Your task to perform on an android device: add a label to a message in the gmail app Image 0: 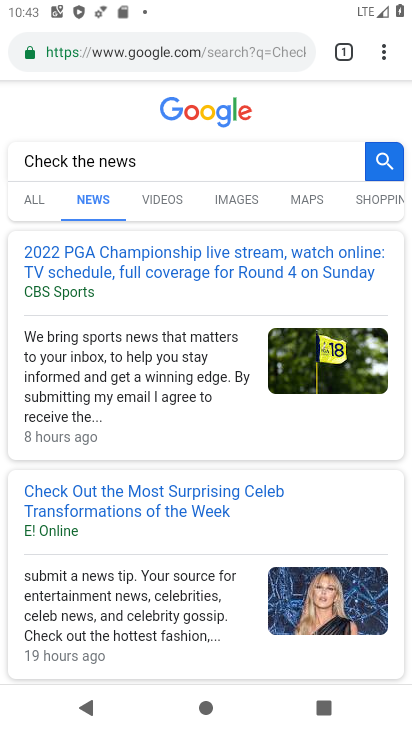
Step 0: press back button
Your task to perform on an android device: add a label to a message in the gmail app Image 1: 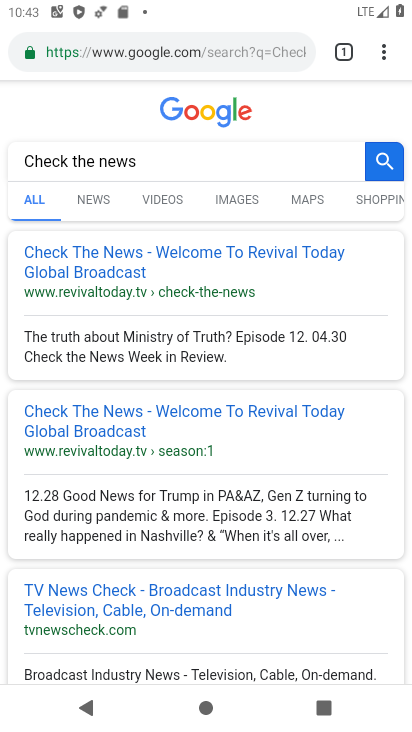
Step 1: press home button
Your task to perform on an android device: add a label to a message in the gmail app Image 2: 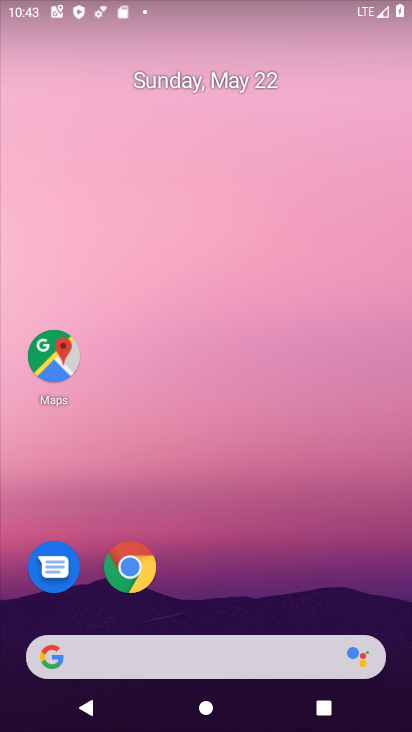
Step 2: drag from (247, 562) to (230, 15)
Your task to perform on an android device: add a label to a message in the gmail app Image 3: 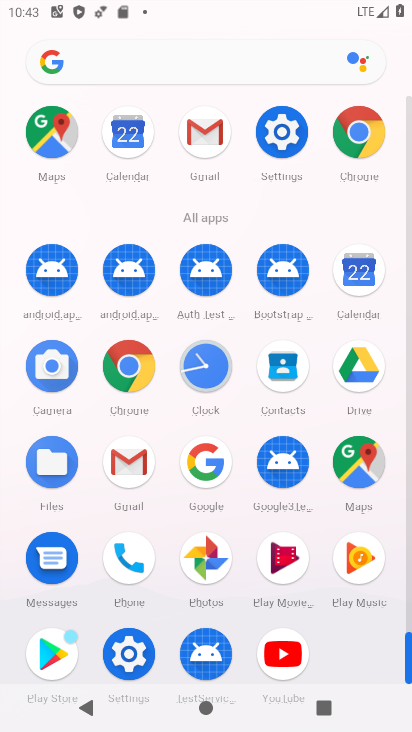
Step 3: click (203, 124)
Your task to perform on an android device: add a label to a message in the gmail app Image 4: 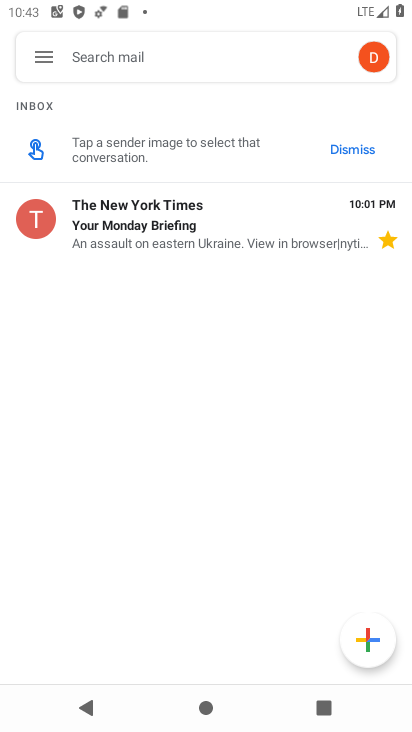
Step 4: click (47, 50)
Your task to perform on an android device: add a label to a message in the gmail app Image 5: 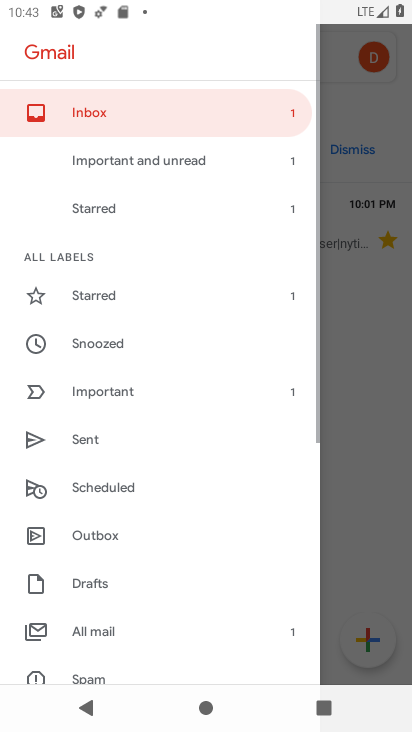
Step 5: drag from (138, 589) to (188, 143)
Your task to perform on an android device: add a label to a message in the gmail app Image 6: 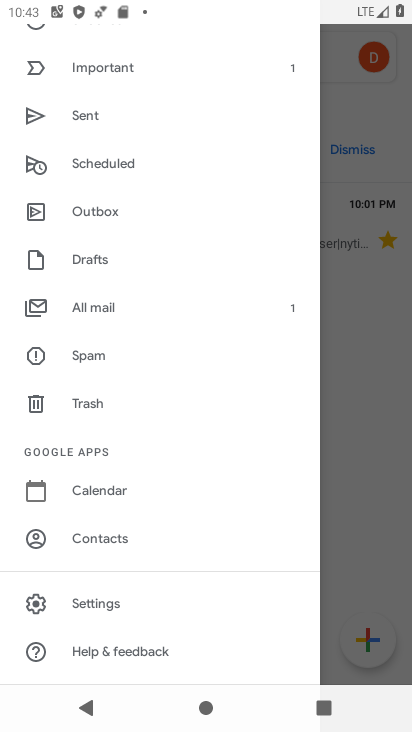
Step 6: click (126, 299)
Your task to perform on an android device: add a label to a message in the gmail app Image 7: 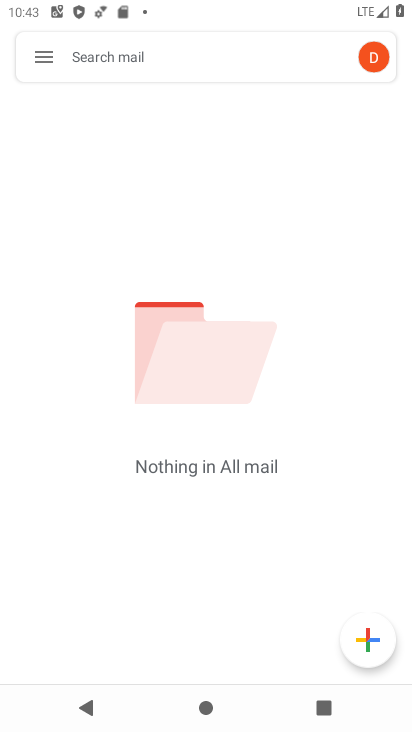
Step 7: click (34, 50)
Your task to perform on an android device: add a label to a message in the gmail app Image 8: 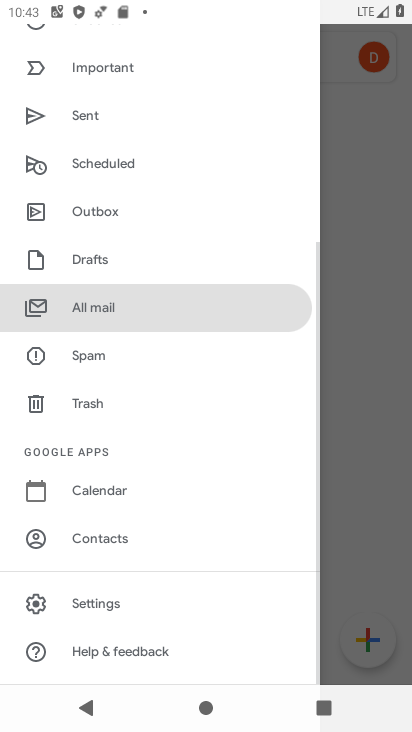
Step 8: drag from (210, 159) to (225, 634)
Your task to perform on an android device: add a label to a message in the gmail app Image 9: 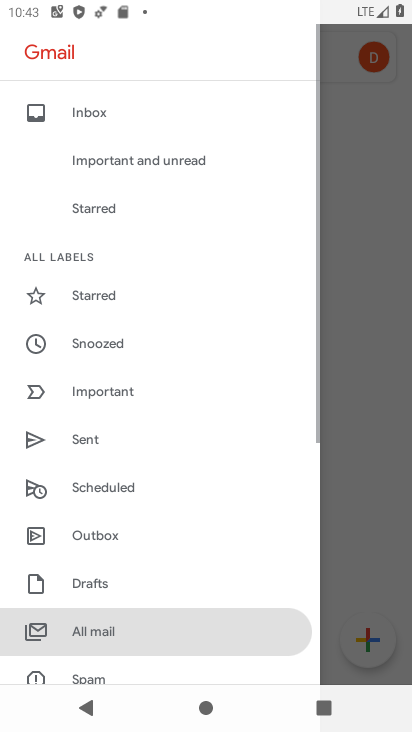
Step 9: click (120, 116)
Your task to perform on an android device: add a label to a message in the gmail app Image 10: 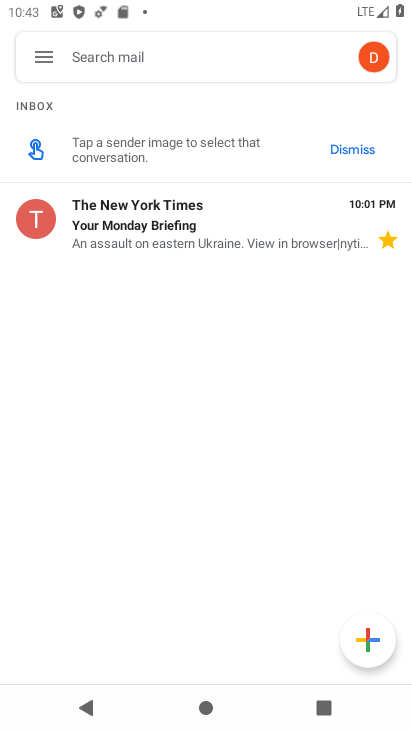
Step 10: click (246, 212)
Your task to perform on an android device: add a label to a message in the gmail app Image 11: 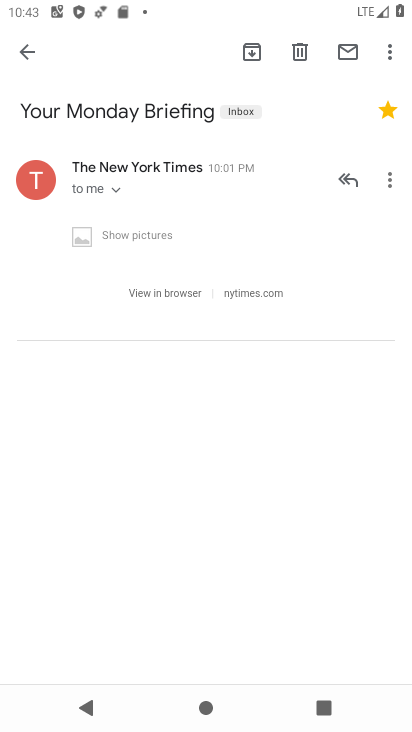
Step 11: click (243, 110)
Your task to perform on an android device: add a label to a message in the gmail app Image 12: 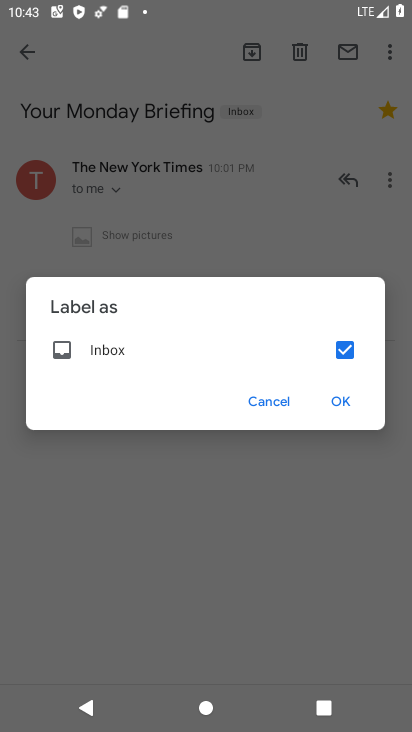
Step 12: click (340, 352)
Your task to perform on an android device: add a label to a message in the gmail app Image 13: 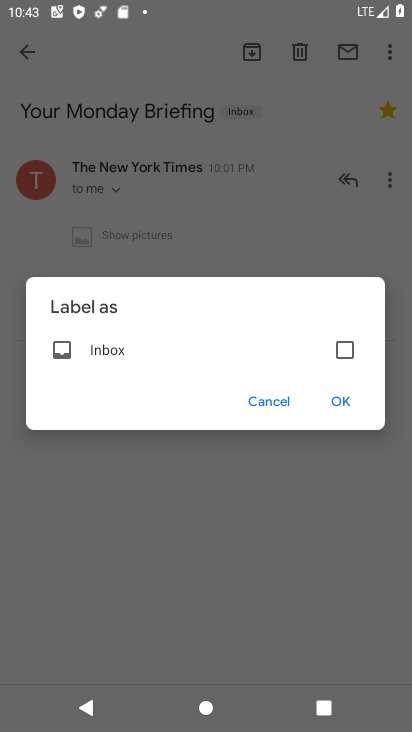
Step 13: click (341, 396)
Your task to perform on an android device: add a label to a message in the gmail app Image 14: 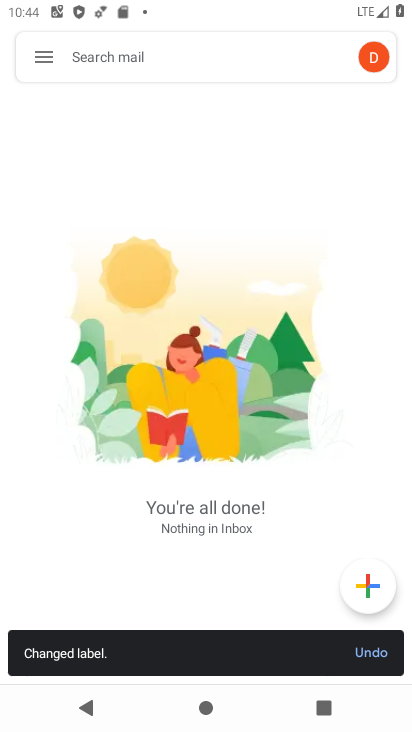
Step 14: task complete